Your task to perform on an android device: clear history in the chrome app Image 0: 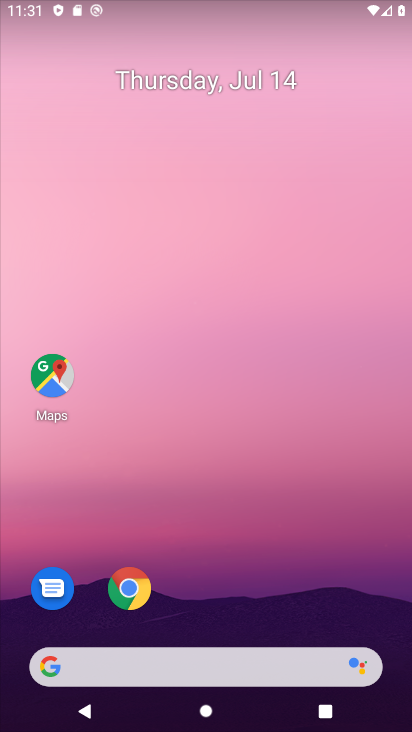
Step 0: click (135, 584)
Your task to perform on an android device: clear history in the chrome app Image 1: 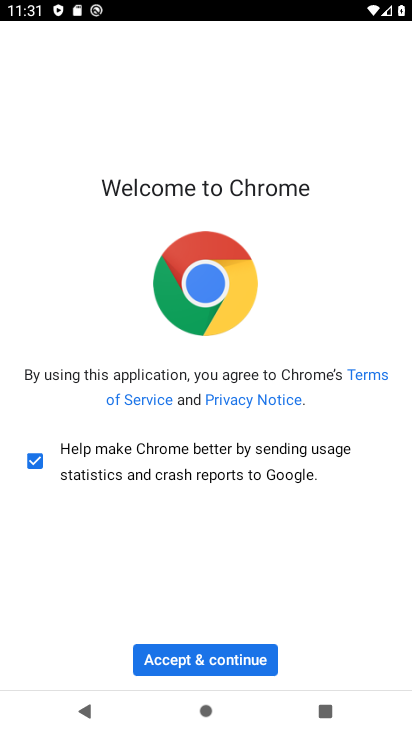
Step 1: click (188, 647)
Your task to perform on an android device: clear history in the chrome app Image 2: 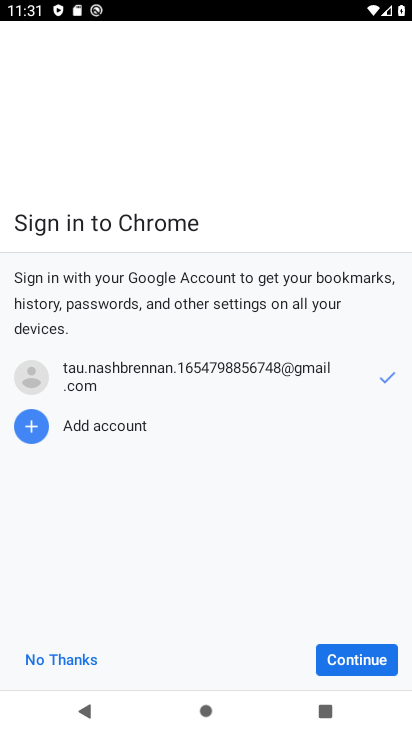
Step 2: click (351, 664)
Your task to perform on an android device: clear history in the chrome app Image 3: 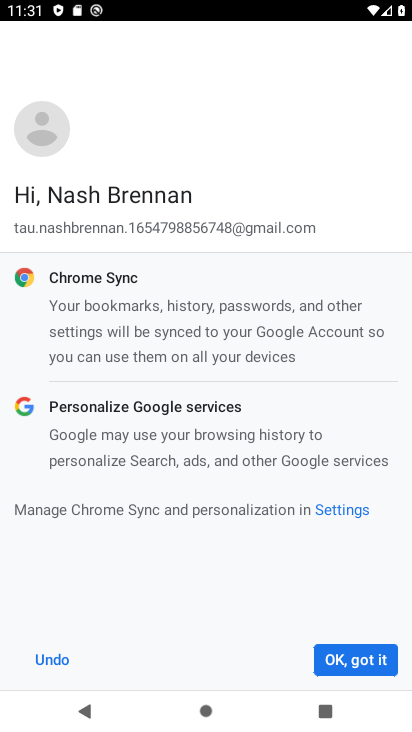
Step 3: click (349, 661)
Your task to perform on an android device: clear history in the chrome app Image 4: 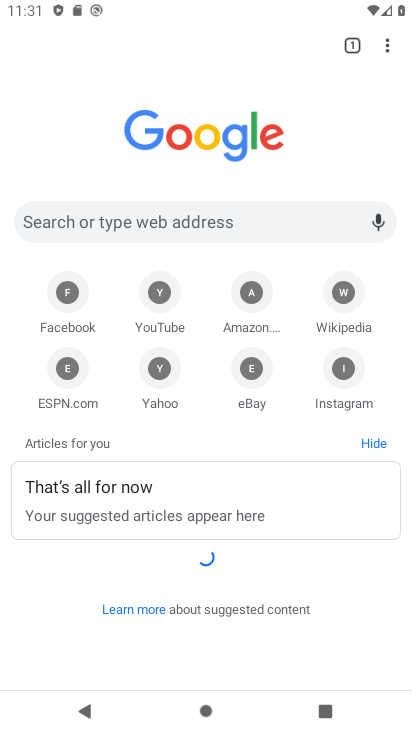
Step 4: drag from (349, 8) to (228, 620)
Your task to perform on an android device: clear history in the chrome app Image 5: 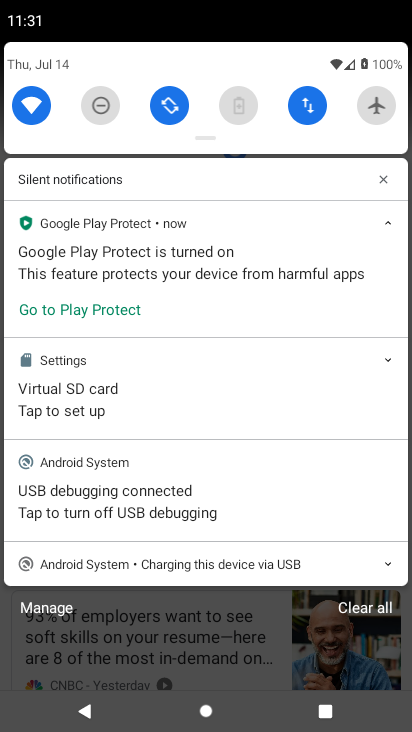
Step 5: drag from (231, 601) to (295, 4)
Your task to perform on an android device: clear history in the chrome app Image 6: 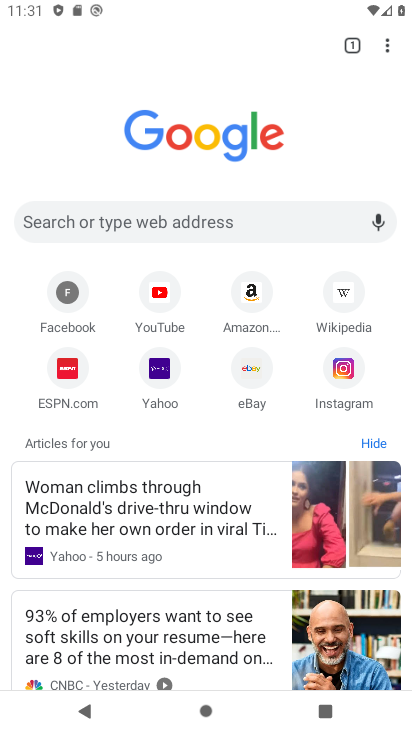
Step 6: click (394, 39)
Your task to perform on an android device: clear history in the chrome app Image 7: 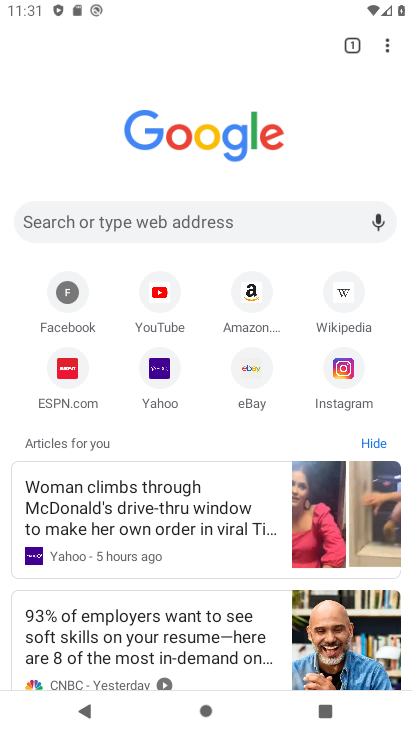
Step 7: drag from (380, 44) to (238, 251)
Your task to perform on an android device: clear history in the chrome app Image 8: 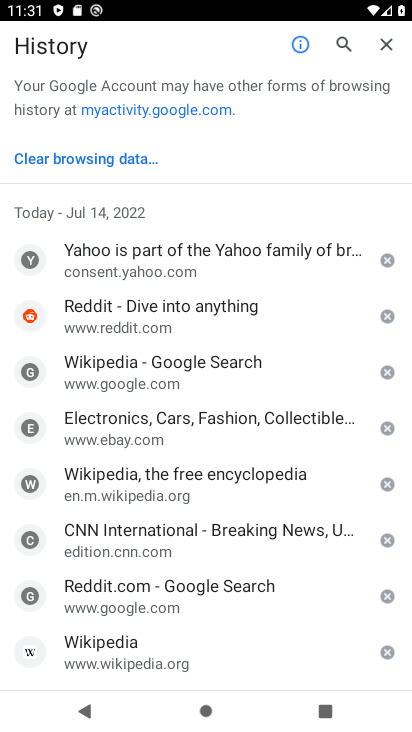
Step 8: click (93, 158)
Your task to perform on an android device: clear history in the chrome app Image 9: 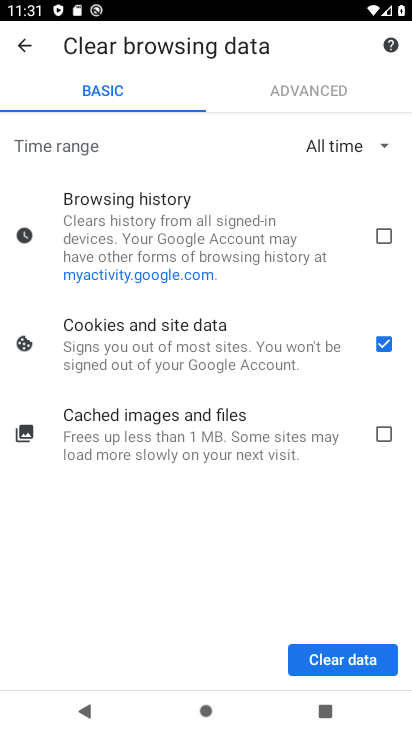
Step 9: click (388, 240)
Your task to perform on an android device: clear history in the chrome app Image 10: 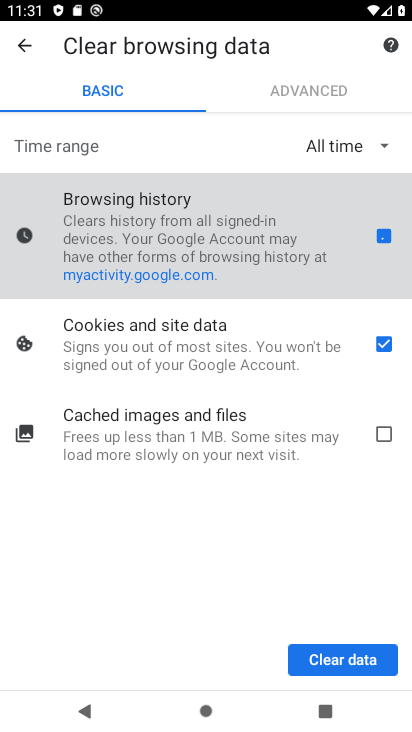
Step 10: click (391, 436)
Your task to perform on an android device: clear history in the chrome app Image 11: 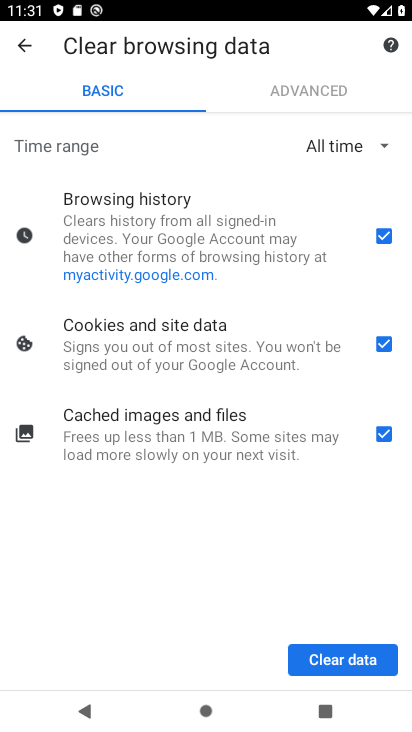
Step 11: click (336, 646)
Your task to perform on an android device: clear history in the chrome app Image 12: 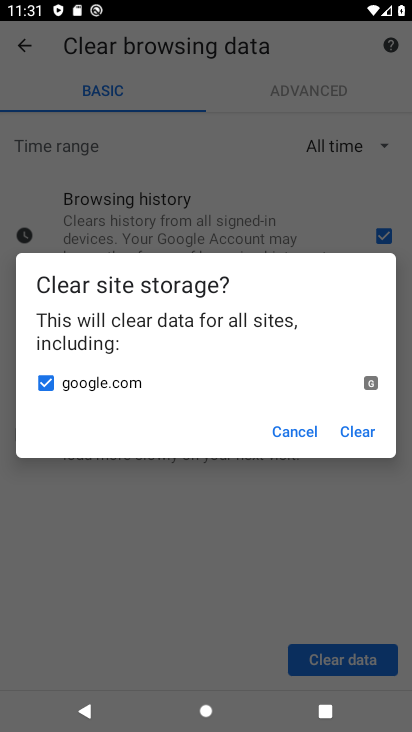
Step 12: click (360, 455)
Your task to perform on an android device: clear history in the chrome app Image 13: 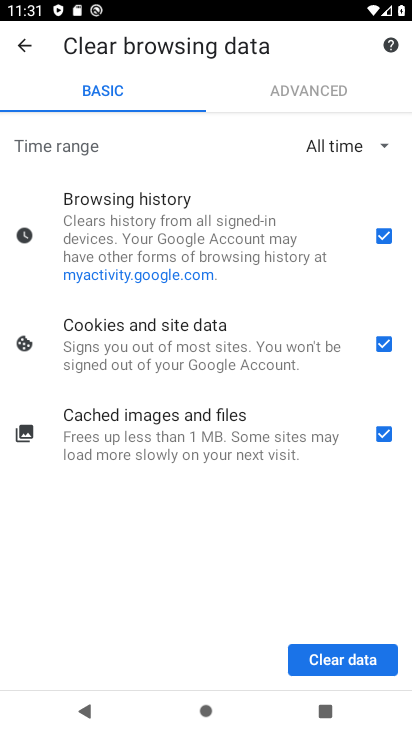
Step 13: click (362, 439)
Your task to perform on an android device: clear history in the chrome app Image 14: 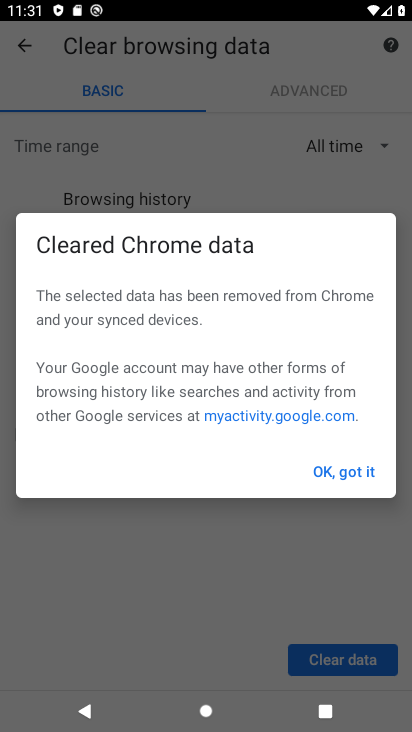
Step 14: click (324, 472)
Your task to perform on an android device: clear history in the chrome app Image 15: 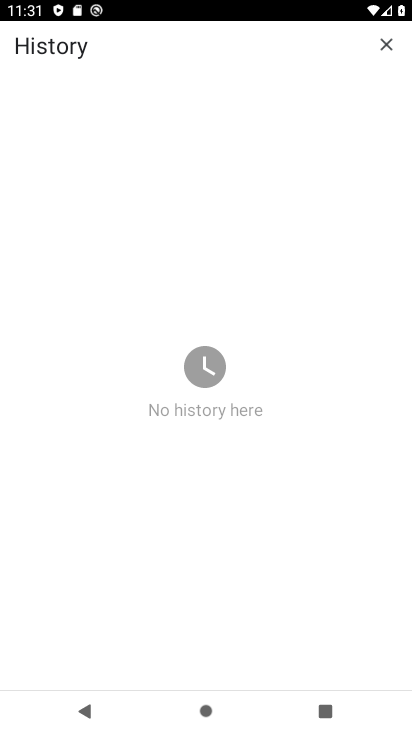
Step 15: task complete